Your task to perform on an android device: change notification settings in the gmail app Image 0: 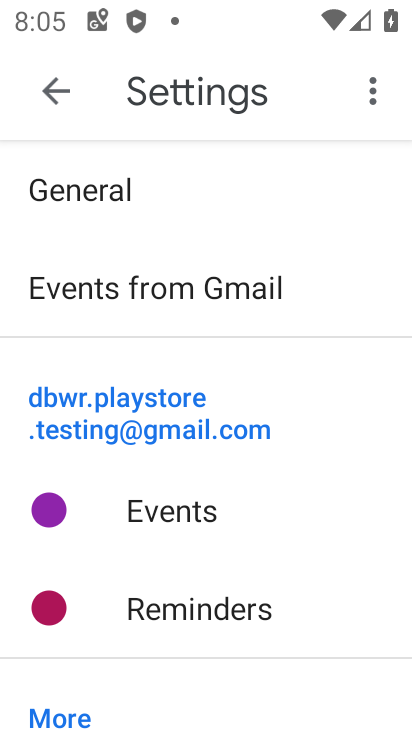
Step 0: press home button
Your task to perform on an android device: change notification settings in the gmail app Image 1: 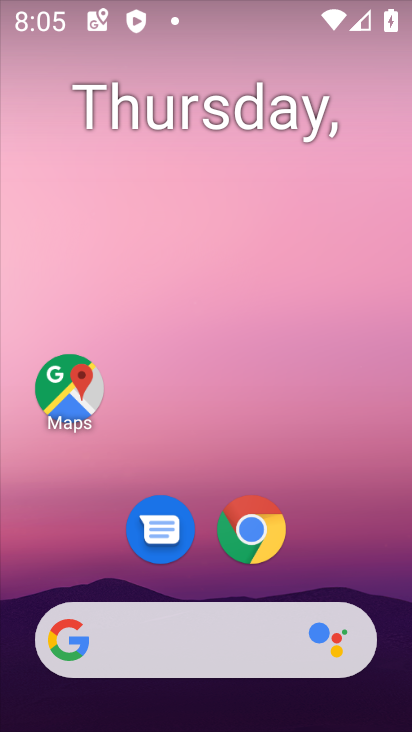
Step 1: drag from (207, 726) to (213, 143)
Your task to perform on an android device: change notification settings in the gmail app Image 2: 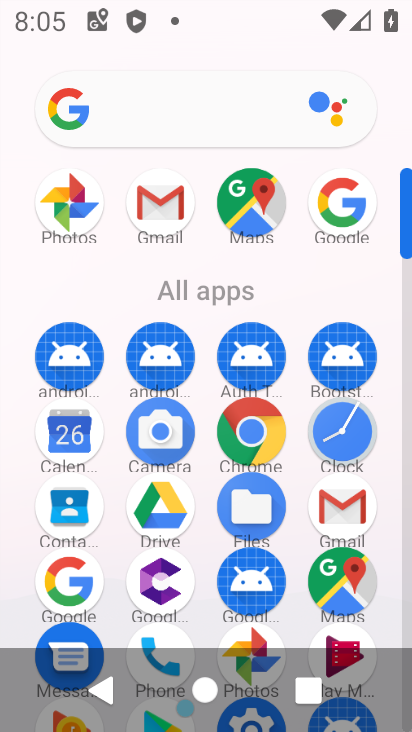
Step 2: click (338, 512)
Your task to perform on an android device: change notification settings in the gmail app Image 3: 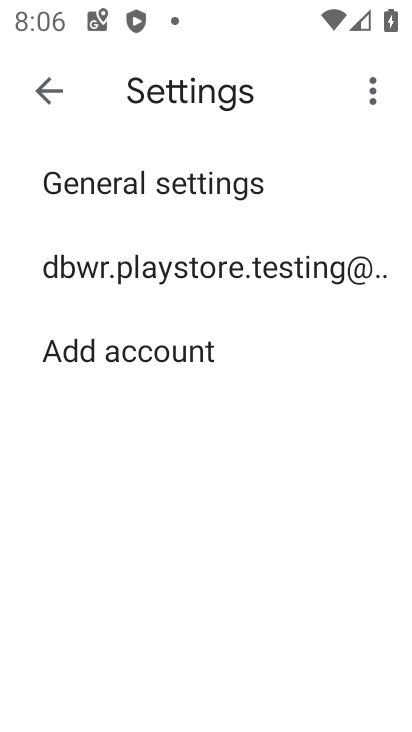
Step 3: click (215, 270)
Your task to perform on an android device: change notification settings in the gmail app Image 4: 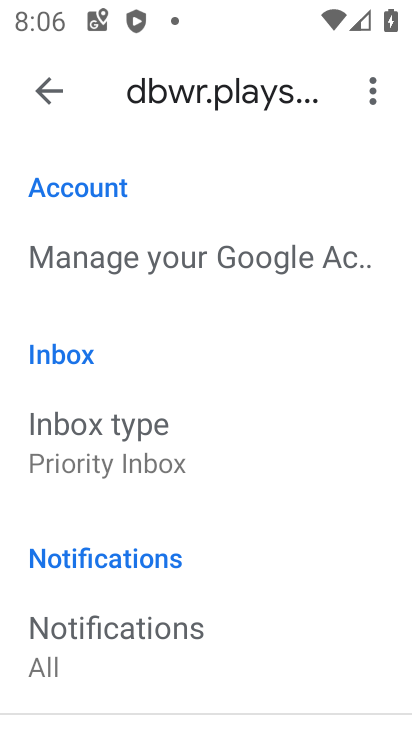
Step 4: drag from (193, 680) to (240, 307)
Your task to perform on an android device: change notification settings in the gmail app Image 5: 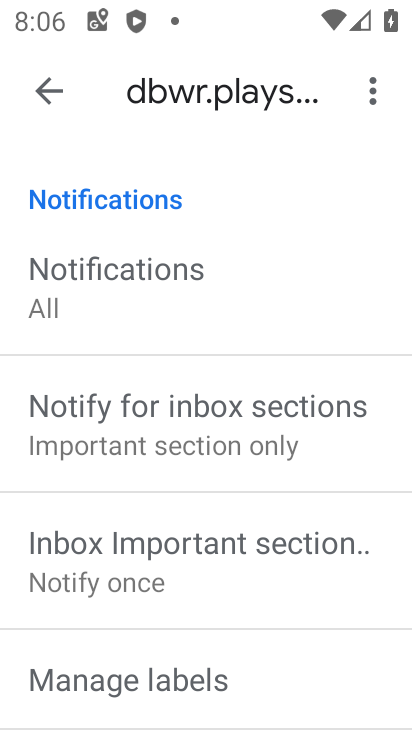
Step 5: drag from (224, 660) to (224, 431)
Your task to perform on an android device: change notification settings in the gmail app Image 6: 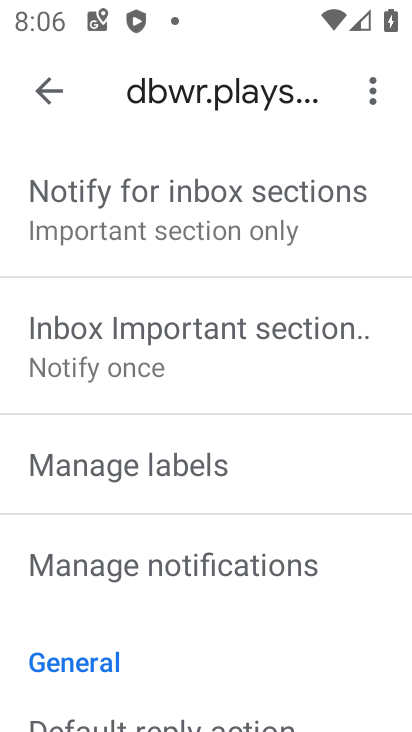
Step 6: drag from (213, 237) to (224, 590)
Your task to perform on an android device: change notification settings in the gmail app Image 7: 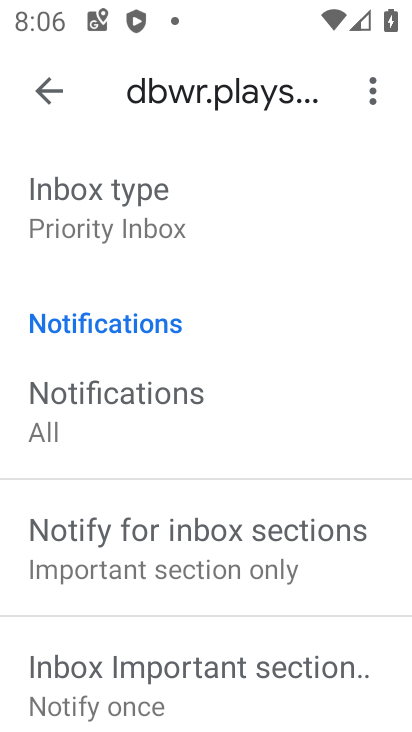
Step 7: click (126, 390)
Your task to perform on an android device: change notification settings in the gmail app Image 8: 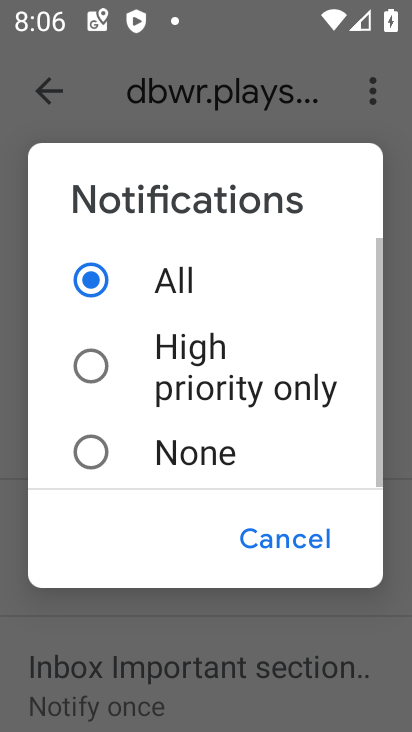
Step 8: click (87, 450)
Your task to perform on an android device: change notification settings in the gmail app Image 9: 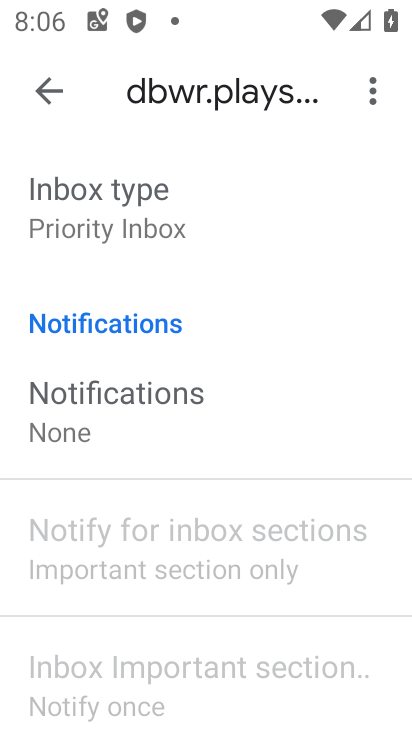
Step 9: task complete